Your task to perform on an android device: turn off location history Image 0: 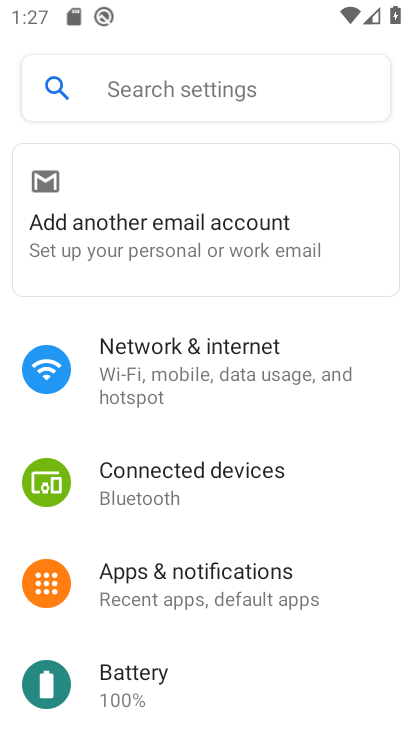
Step 0: drag from (299, 653) to (270, 256)
Your task to perform on an android device: turn off location history Image 1: 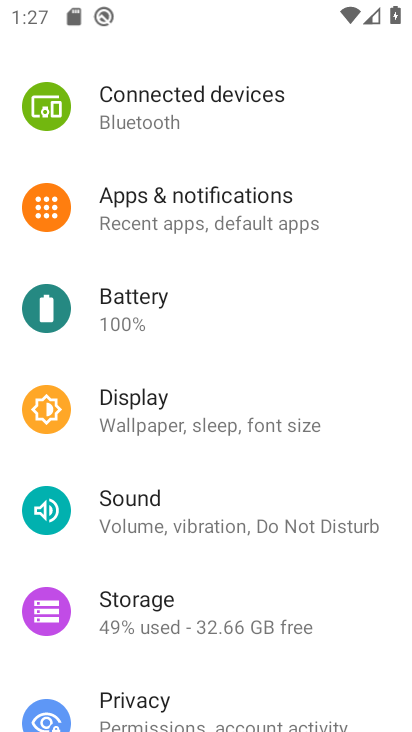
Step 1: drag from (220, 695) to (235, 417)
Your task to perform on an android device: turn off location history Image 2: 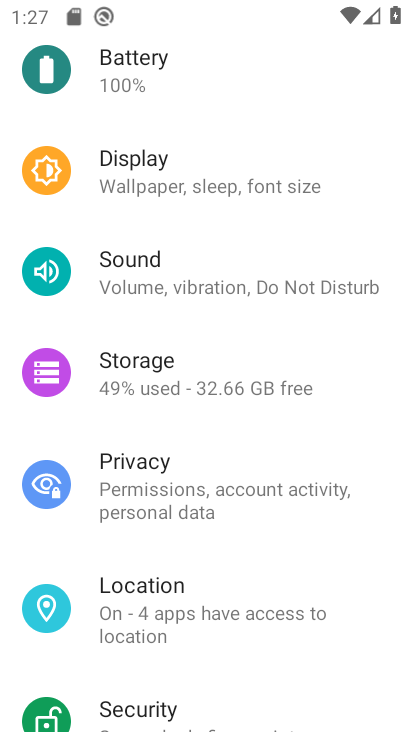
Step 2: click (171, 637)
Your task to perform on an android device: turn off location history Image 3: 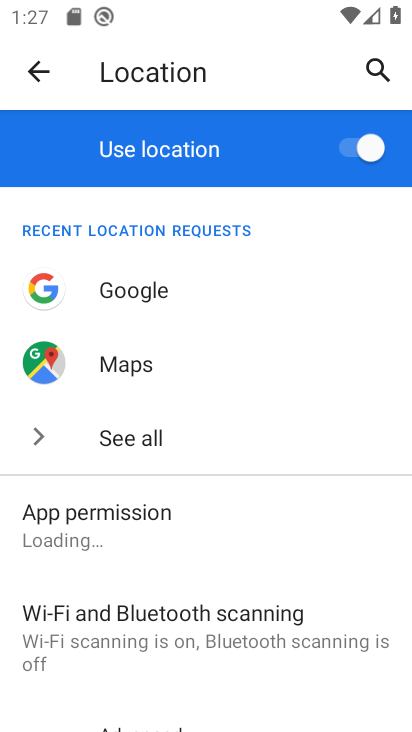
Step 3: drag from (284, 659) to (265, 310)
Your task to perform on an android device: turn off location history Image 4: 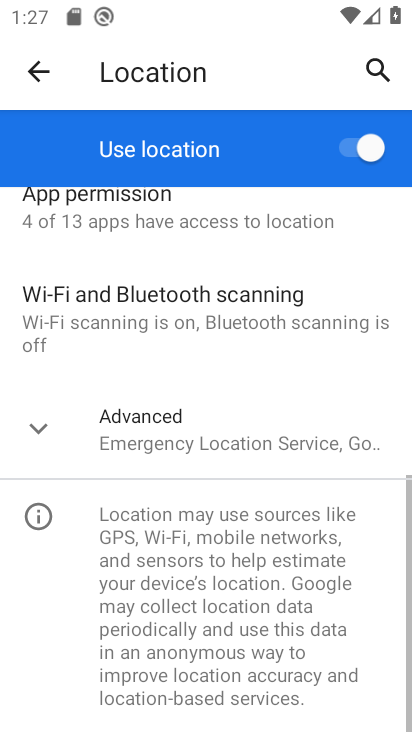
Step 4: click (217, 453)
Your task to perform on an android device: turn off location history Image 5: 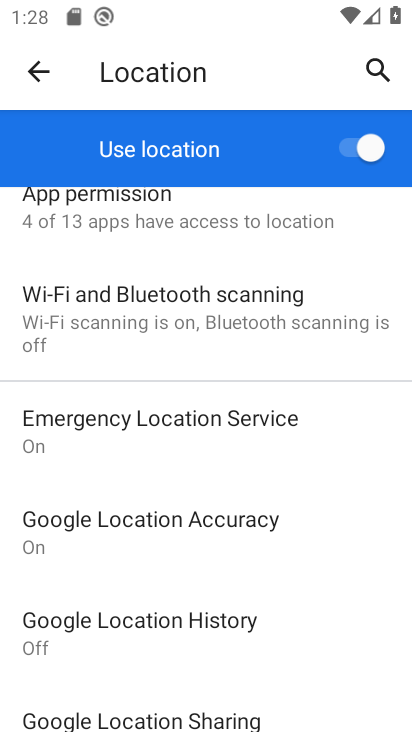
Step 5: drag from (308, 683) to (284, 352)
Your task to perform on an android device: turn off location history Image 6: 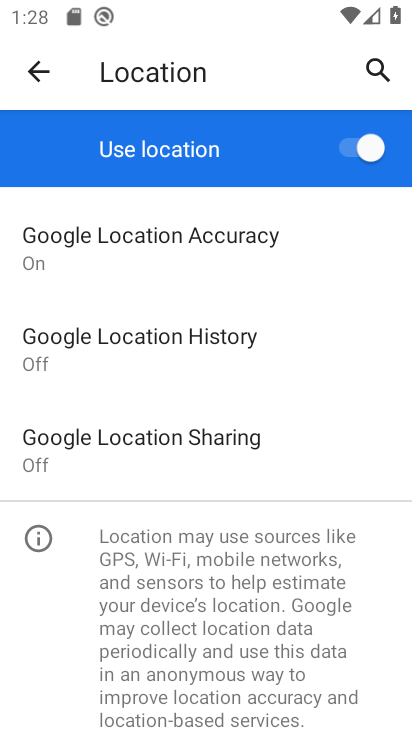
Step 6: click (238, 343)
Your task to perform on an android device: turn off location history Image 7: 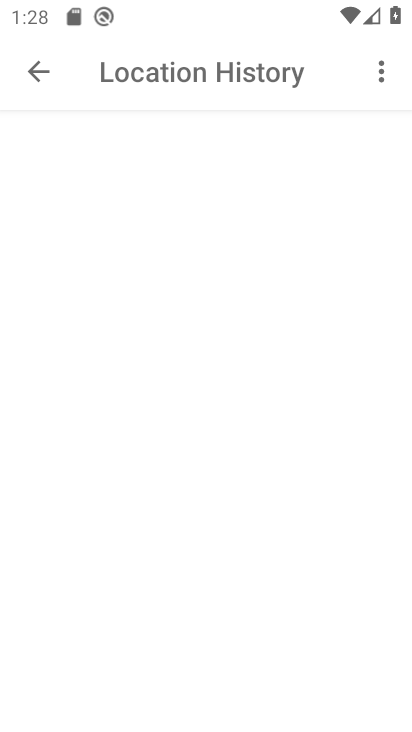
Step 7: task complete